Your task to perform on an android device: Open Google Chrome and open the bookmarks view Image 0: 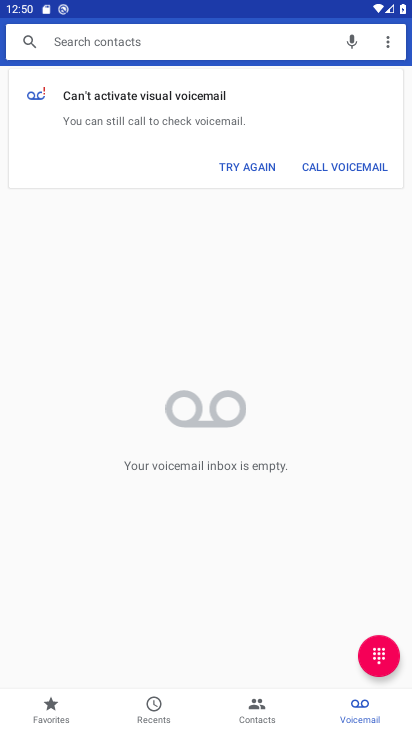
Step 0: press home button
Your task to perform on an android device: Open Google Chrome and open the bookmarks view Image 1: 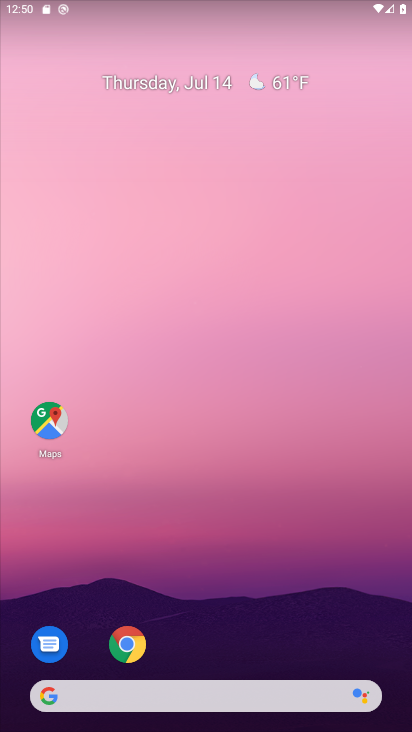
Step 1: click (117, 639)
Your task to perform on an android device: Open Google Chrome and open the bookmarks view Image 2: 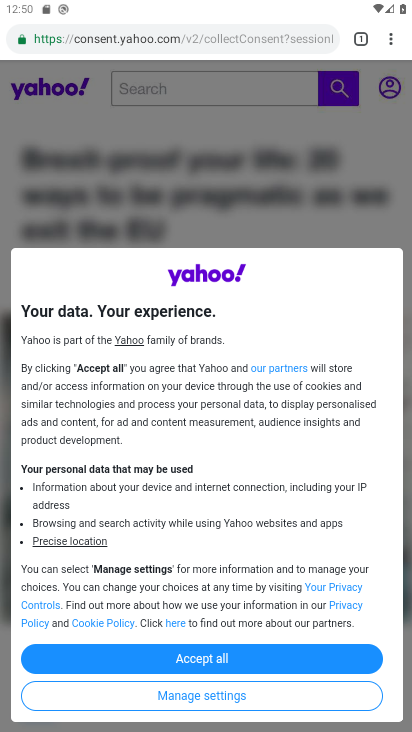
Step 2: click (393, 41)
Your task to perform on an android device: Open Google Chrome and open the bookmarks view Image 3: 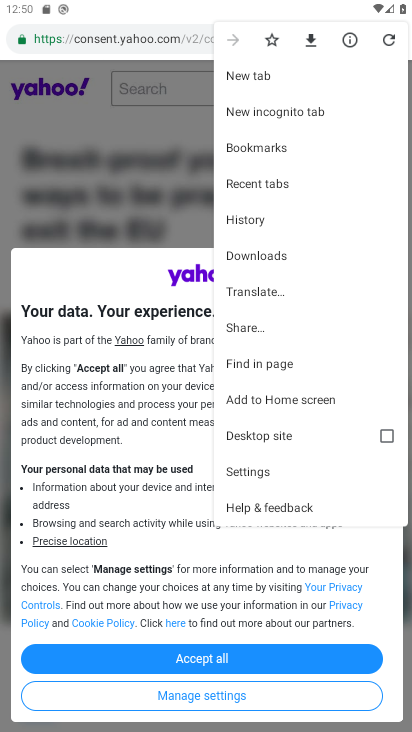
Step 3: click (263, 150)
Your task to perform on an android device: Open Google Chrome and open the bookmarks view Image 4: 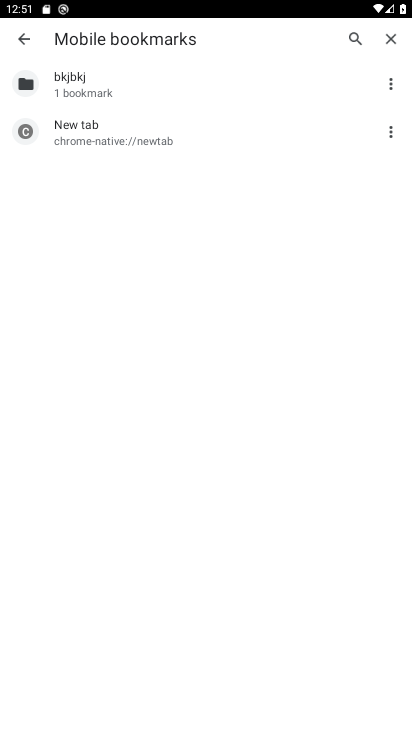
Step 4: task complete